Your task to perform on an android device: Search for logitech g910 on costco, select the first entry, add it to the cart, then select checkout. Image 0: 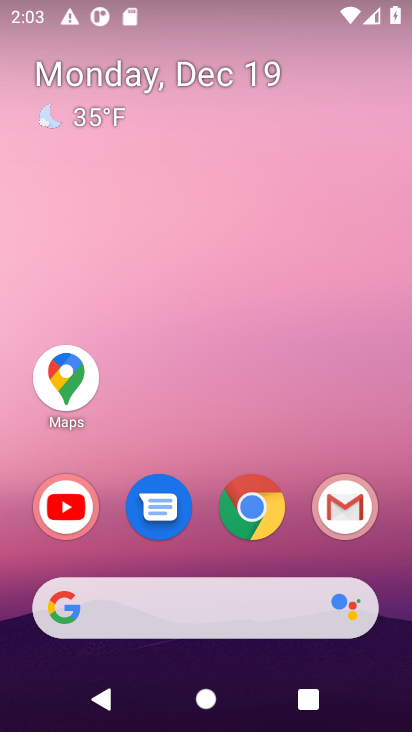
Step 0: click (253, 511)
Your task to perform on an android device: Search for logitech g910 on costco, select the first entry, add it to the cart, then select checkout. Image 1: 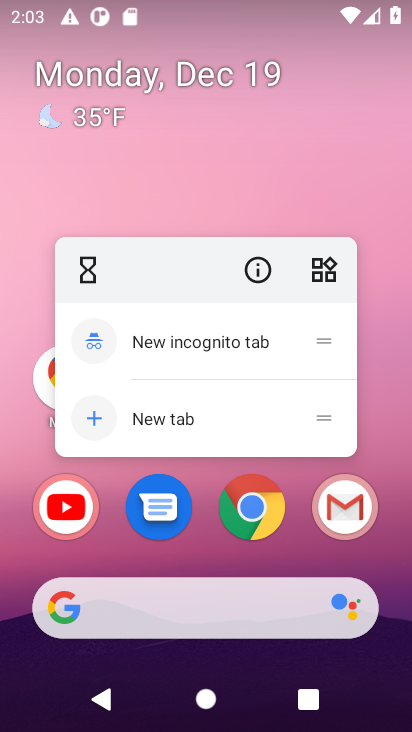
Step 1: click (259, 513)
Your task to perform on an android device: Search for logitech g910 on costco, select the first entry, add it to the cart, then select checkout. Image 2: 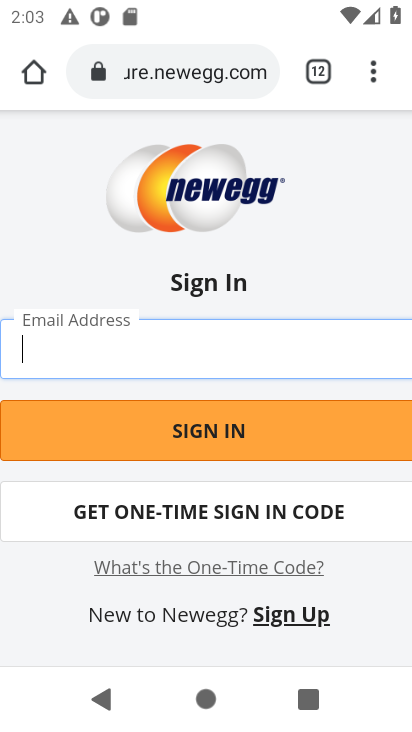
Step 2: click (138, 77)
Your task to perform on an android device: Search for logitech g910 on costco, select the first entry, add it to the cart, then select checkout. Image 3: 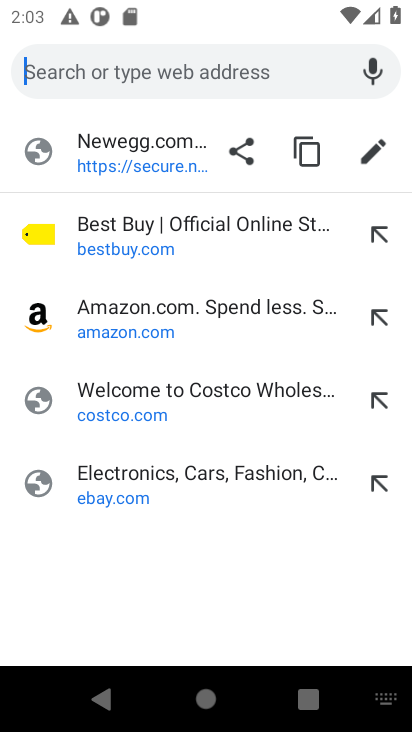
Step 3: click (113, 400)
Your task to perform on an android device: Search for logitech g910 on costco, select the first entry, add it to the cart, then select checkout. Image 4: 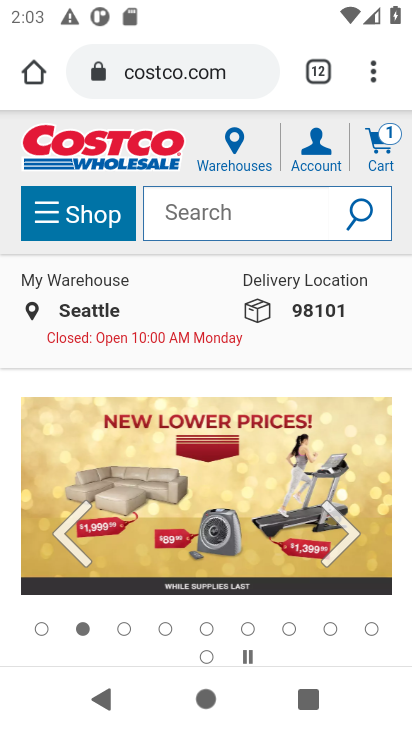
Step 4: click (172, 212)
Your task to perform on an android device: Search for logitech g910 on costco, select the first entry, add it to the cart, then select checkout. Image 5: 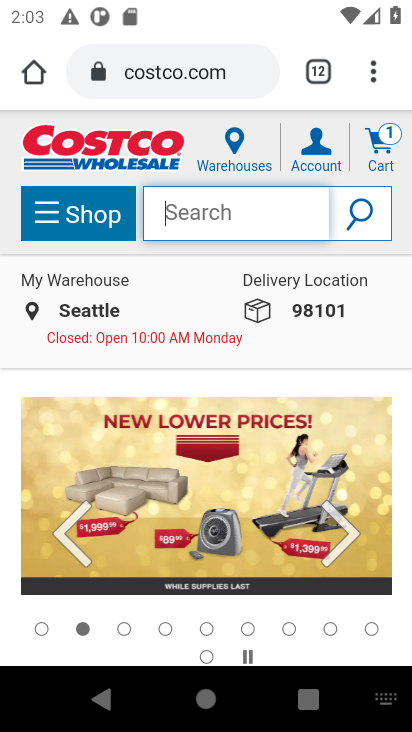
Step 5: type " logitech g910"
Your task to perform on an android device: Search for logitech g910 on costco, select the first entry, add it to the cart, then select checkout. Image 6: 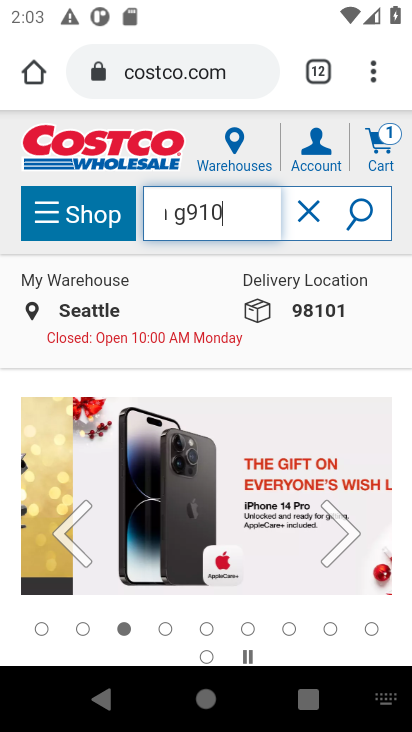
Step 6: click (366, 214)
Your task to perform on an android device: Search for logitech g910 on costco, select the first entry, add it to the cart, then select checkout. Image 7: 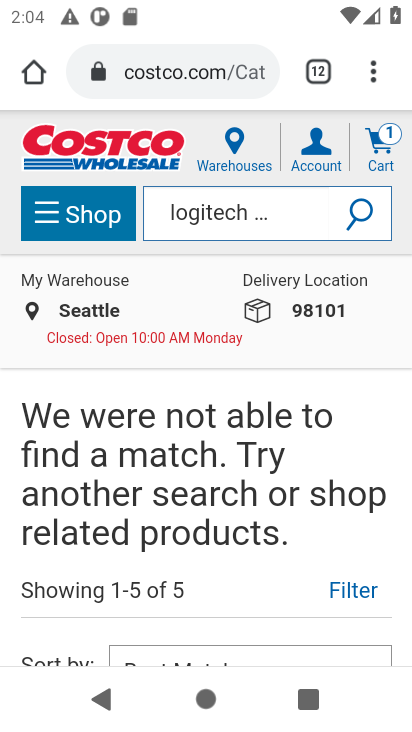
Step 7: task complete